Your task to perform on an android device: Go to privacy settings Image 0: 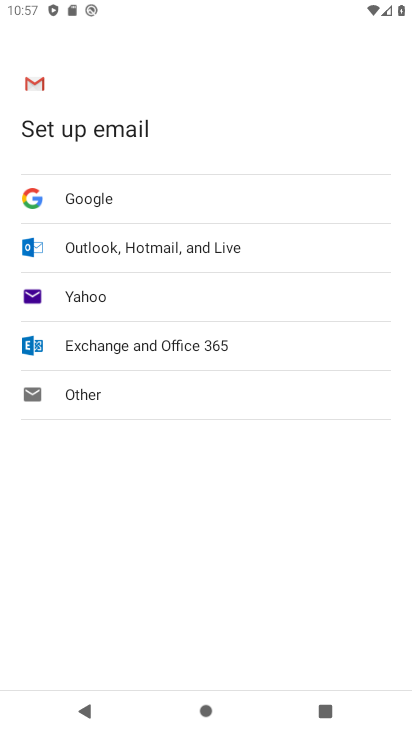
Step 0: press back button
Your task to perform on an android device: Go to privacy settings Image 1: 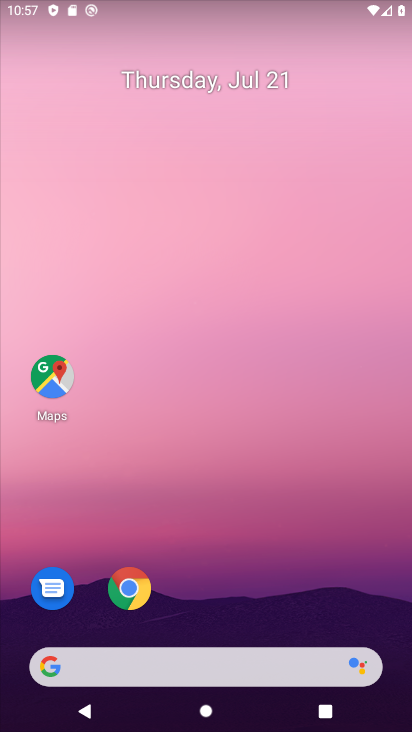
Step 1: drag from (216, 620) to (220, 1)
Your task to perform on an android device: Go to privacy settings Image 2: 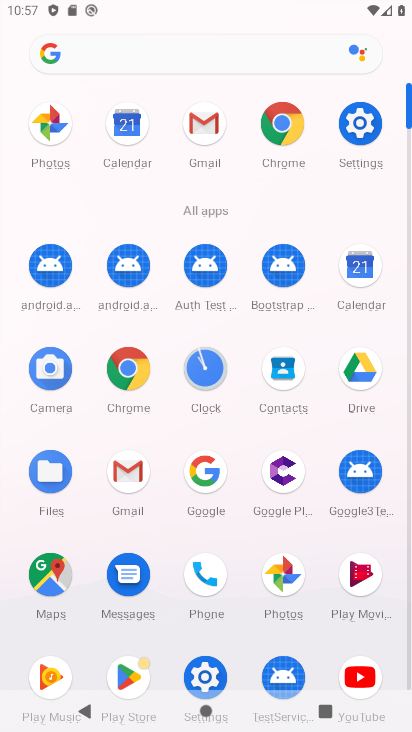
Step 2: click (357, 120)
Your task to perform on an android device: Go to privacy settings Image 3: 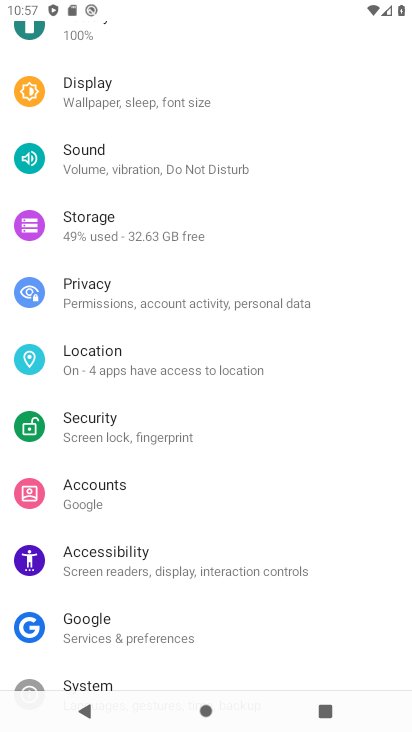
Step 3: click (122, 283)
Your task to perform on an android device: Go to privacy settings Image 4: 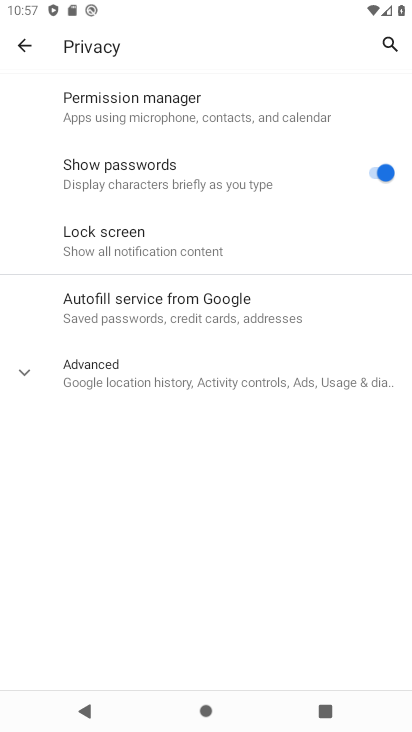
Step 4: click (27, 367)
Your task to perform on an android device: Go to privacy settings Image 5: 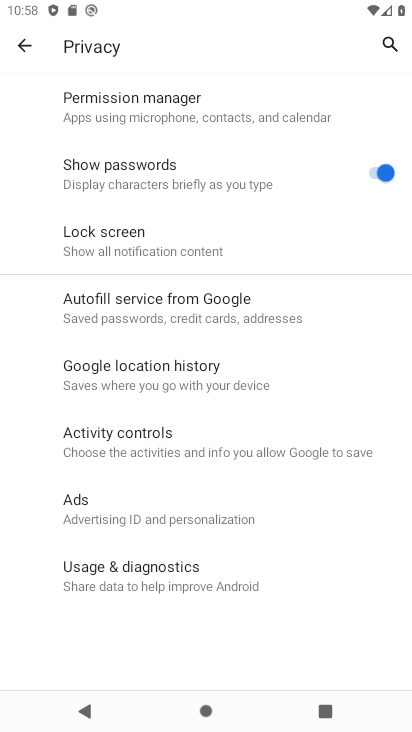
Step 5: task complete